Your task to perform on an android device: Open Google Maps and go to "Timeline" Image 0: 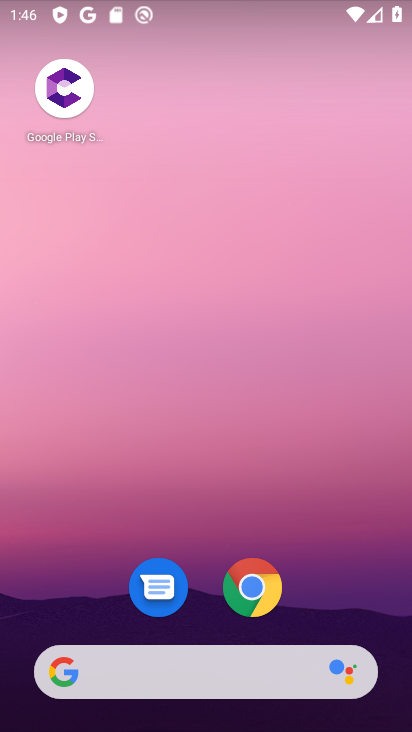
Step 0: drag from (384, 683) to (234, 144)
Your task to perform on an android device: Open Google Maps and go to "Timeline" Image 1: 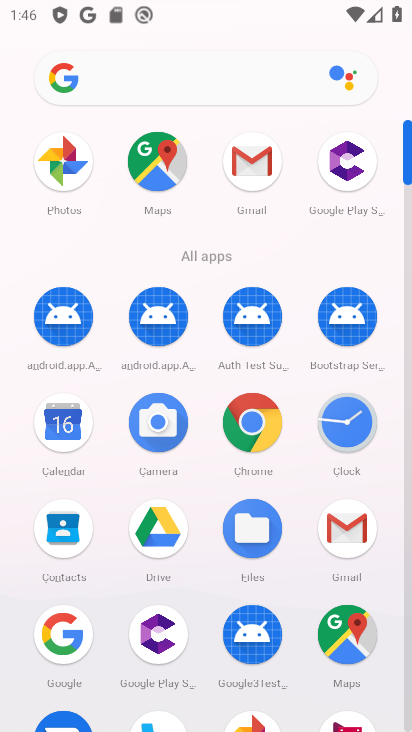
Step 1: click (341, 626)
Your task to perform on an android device: Open Google Maps and go to "Timeline" Image 2: 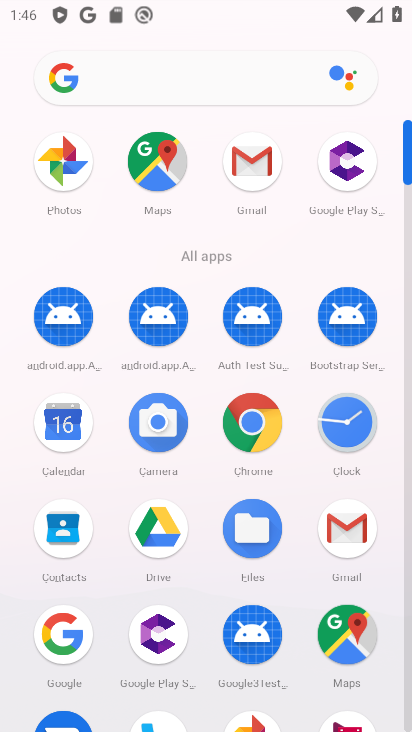
Step 2: click (341, 626)
Your task to perform on an android device: Open Google Maps and go to "Timeline" Image 3: 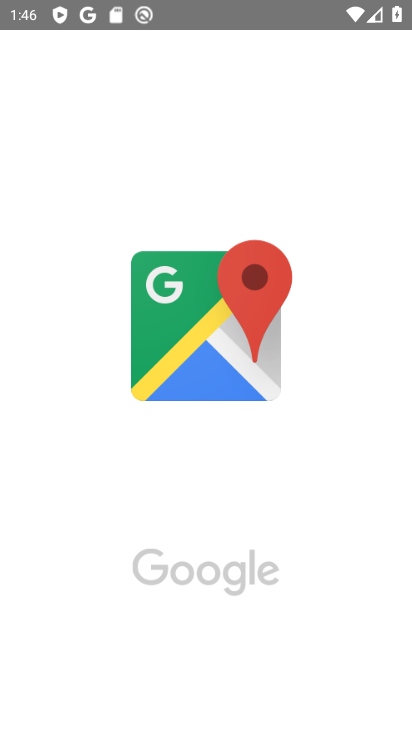
Step 3: click (342, 659)
Your task to perform on an android device: Open Google Maps and go to "Timeline" Image 4: 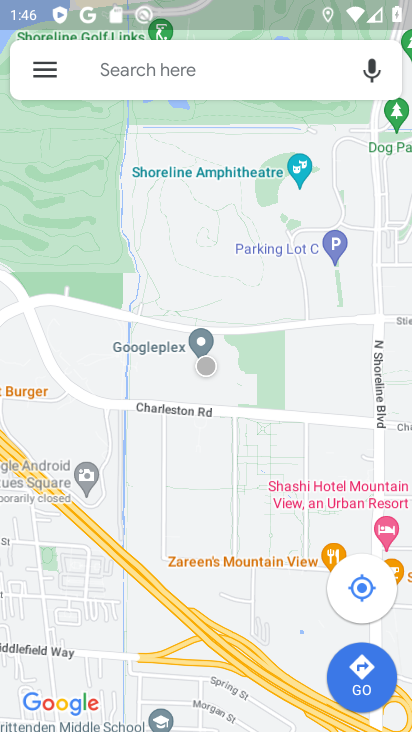
Step 4: click (46, 63)
Your task to perform on an android device: Open Google Maps and go to "Timeline" Image 5: 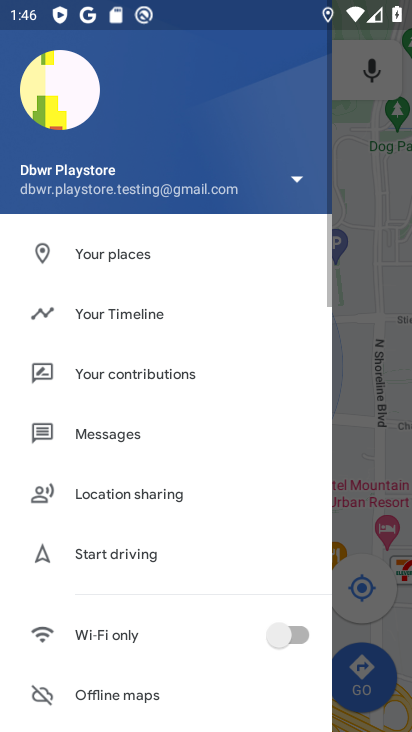
Step 5: click (108, 323)
Your task to perform on an android device: Open Google Maps and go to "Timeline" Image 6: 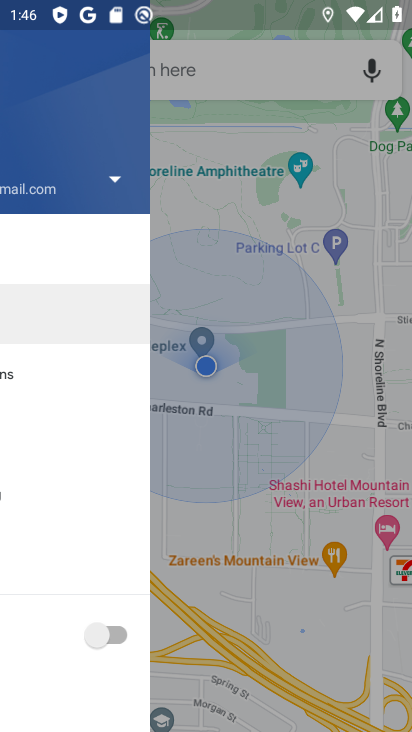
Step 6: click (115, 327)
Your task to perform on an android device: Open Google Maps and go to "Timeline" Image 7: 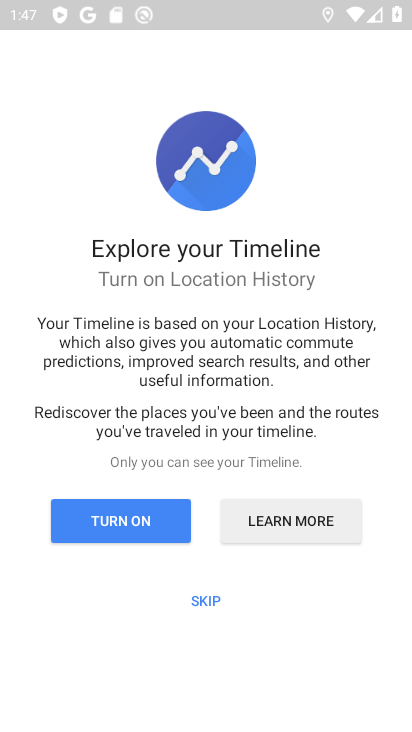
Step 7: click (110, 518)
Your task to perform on an android device: Open Google Maps and go to "Timeline" Image 8: 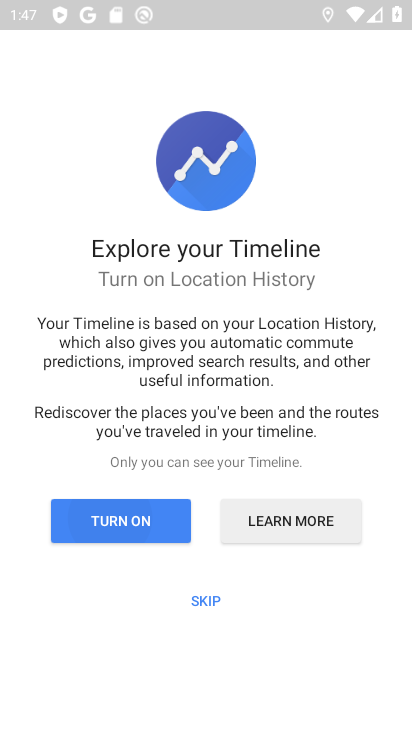
Step 8: click (110, 512)
Your task to perform on an android device: Open Google Maps and go to "Timeline" Image 9: 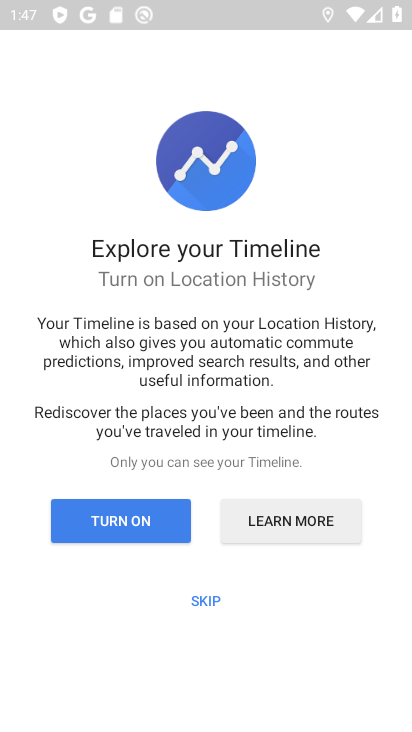
Step 9: click (107, 511)
Your task to perform on an android device: Open Google Maps and go to "Timeline" Image 10: 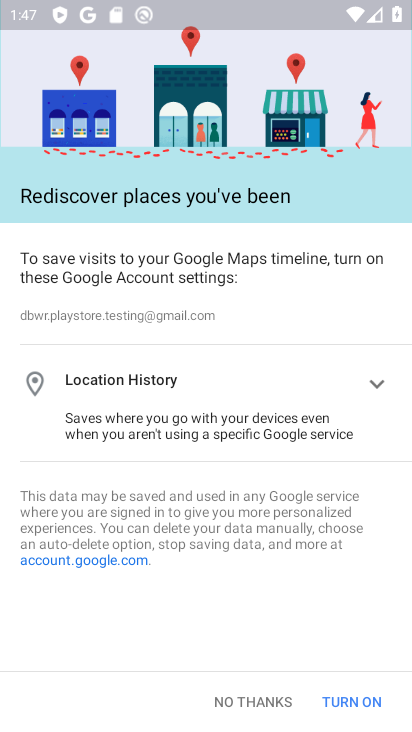
Step 10: task complete